Your task to perform on an android device: visit the assistant section in the google photos Image 0: 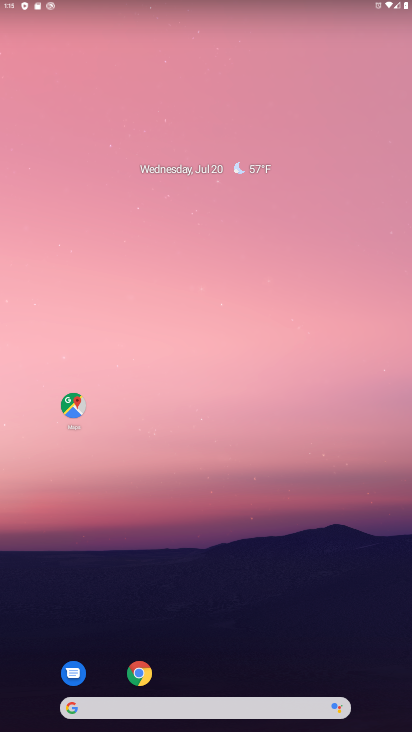
Step 0: drag from (316, 630) to (220, 101)
Your task to perform on an android device: visit the assistant section in the google photos Image 1: 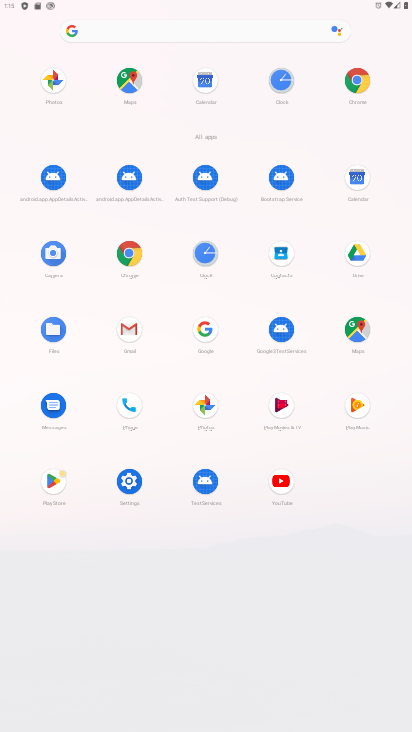
Step 1: click (202, 409)
Your task to perform on an android device: visit the assistant section in the google photos Image 2: 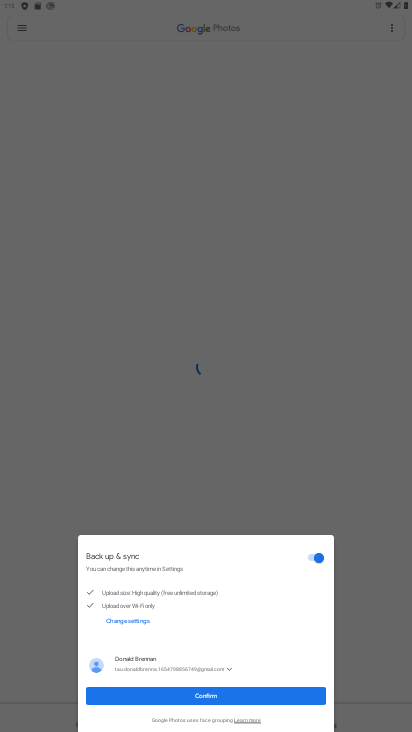
Step 2: click (282, 698)
Your task to perform on an android device: visit the assistant section in the google photos Image 3: 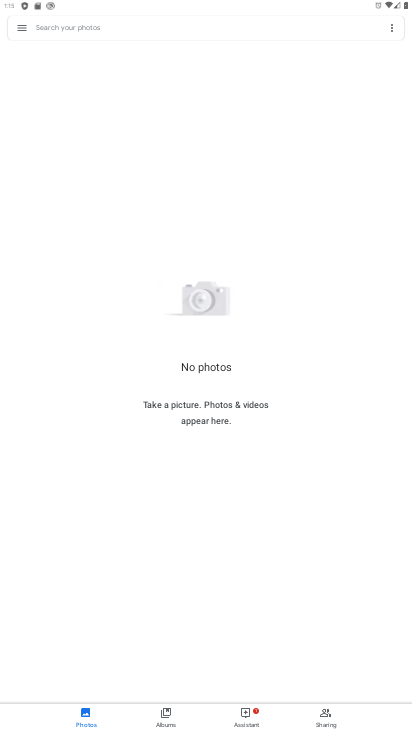
Step 3: click (245, 717)
Your task to perform on an android device: visit the assistant section in the google photos Image 4: 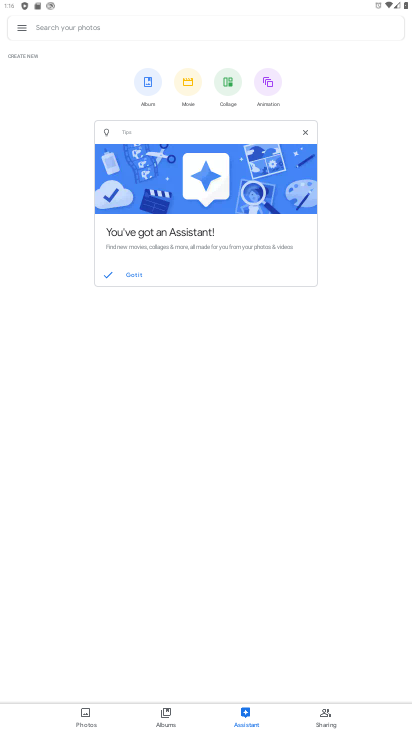
Step 4: click (131, 278)
Your task to perform on an android device: visit the assistant section in the google photos Image 5: 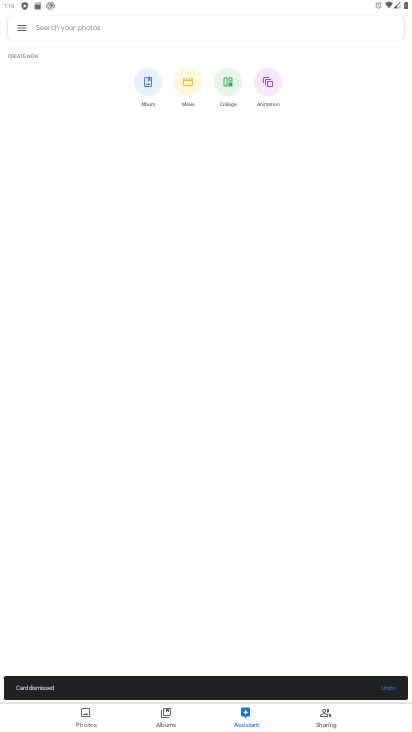
Step 5: task complete